Your task to perform on an android device: change notification settings in the gmail app Image 0: 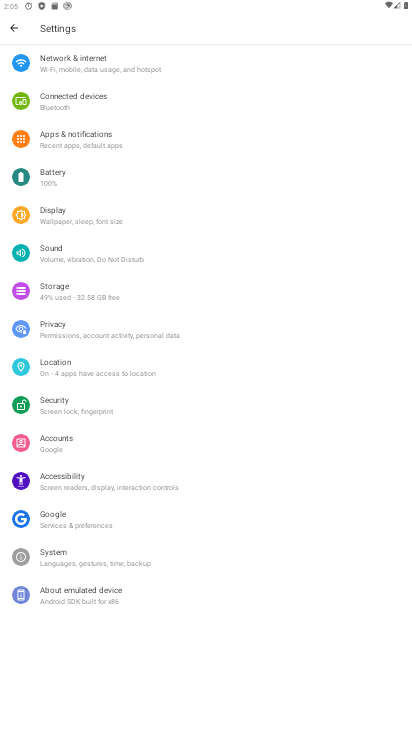
Step 0: press home button
Your task to perform on an android device: change notification settings in the gmail app Image 1: 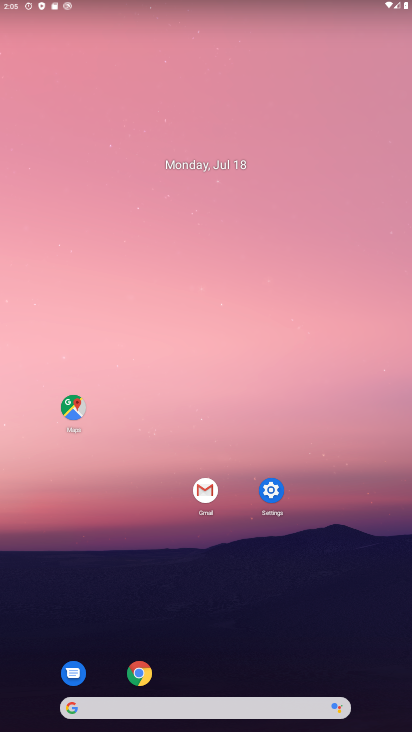
Step 1: click (206, 493)
Your task to perform on an android device: change notification settings in the gmail app Image 2: 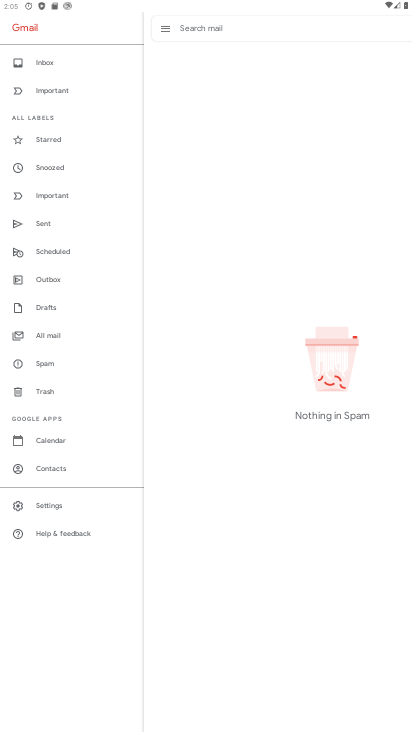
Step 2: click (39, 507)
Your task to perform on an android device: change notification settings in the gmail app Image 3: 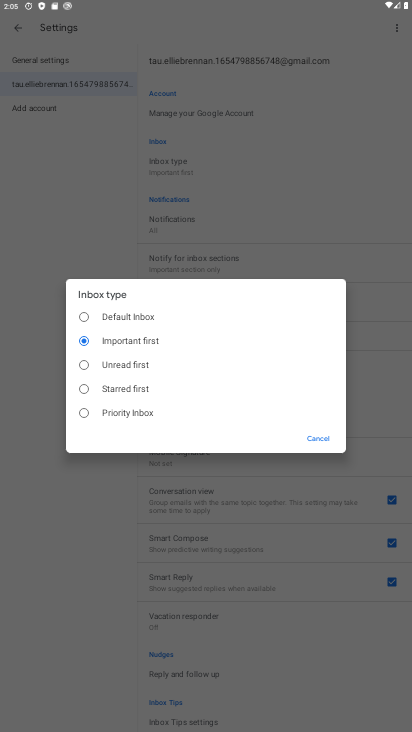
Step 3: click (304, 439)
Your task to perform on an android device: change notification settings in the gmail app Image 4: 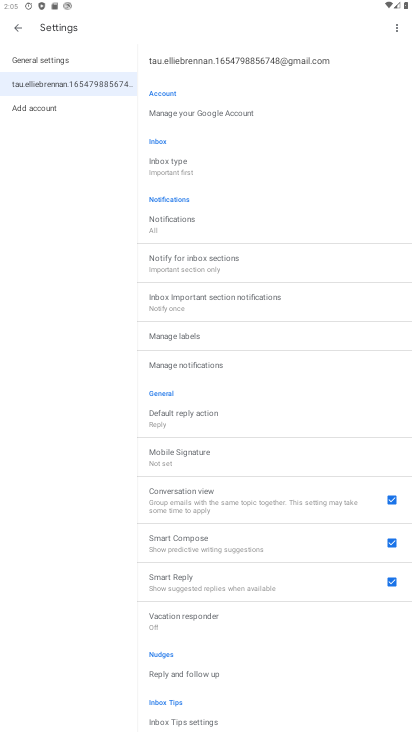
Step 4: click (200, 225)
Your task to perform on an android device: change notification settings in the gmail app Image 5: 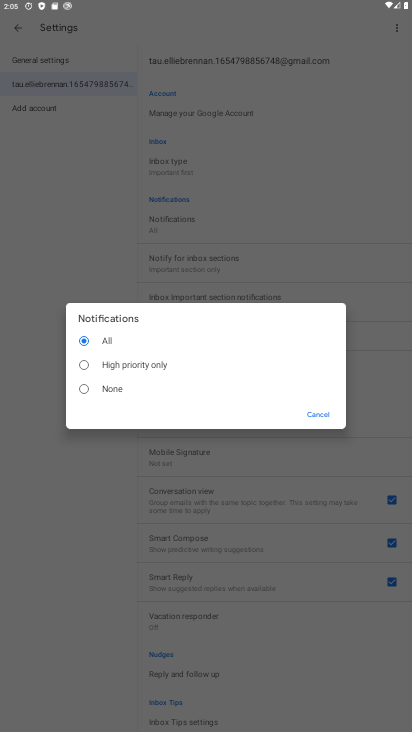
Step 5: click (134, 366)
Your task to perform on an android device: change notification settings in the gmail app Image 6: 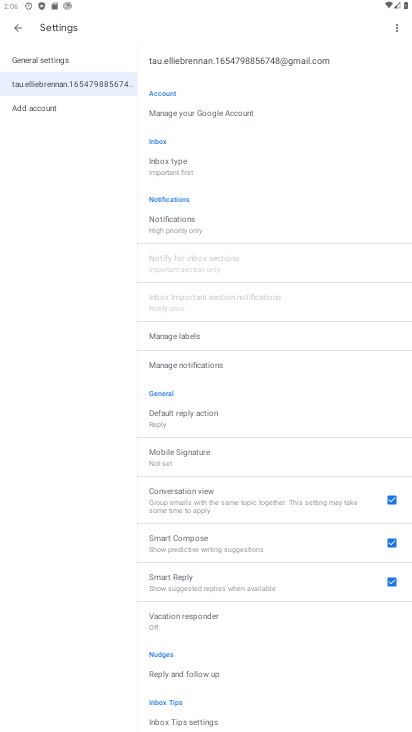
Step 6: task complete